Your task to perform on an android device: Go to internet settings Image 0: 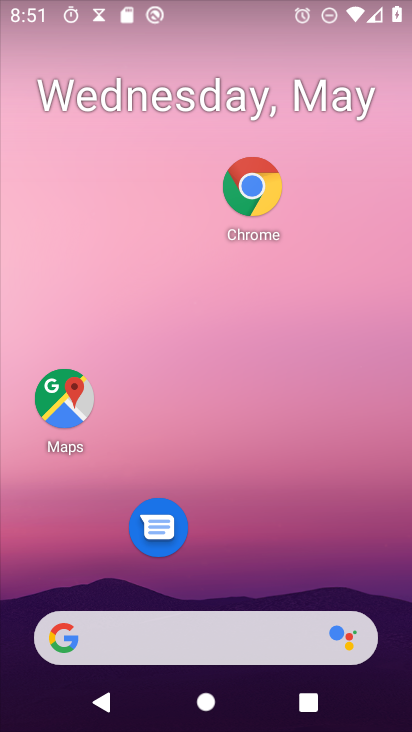
Step 0: drag from (299, 575) to (317, 119)
Your task to perform on an android device: Go to internet settings Image 1: 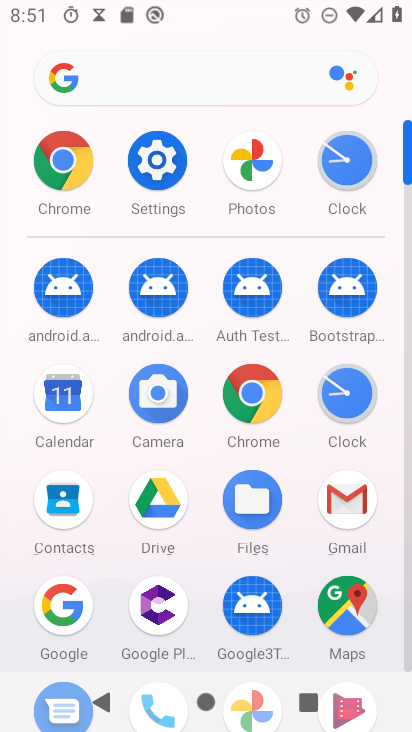
Step 1: click (168, 166)
Your task to perform on an android device: Go to internet settings Image 2: 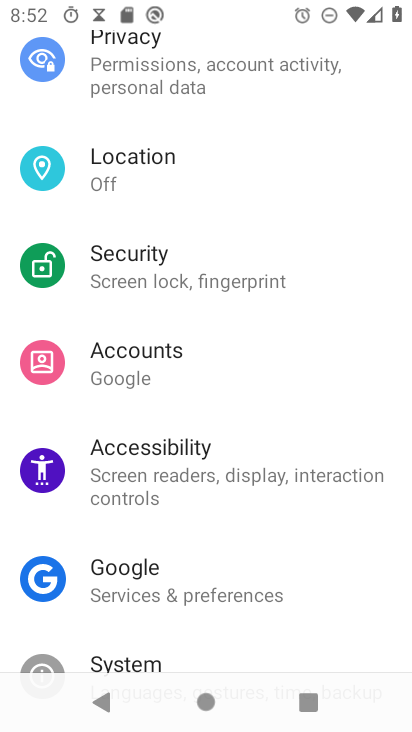
Step 2: drag from (277, 555) to (285, 317)
Your task to perform on an android device: Go to internet settings Image 3: 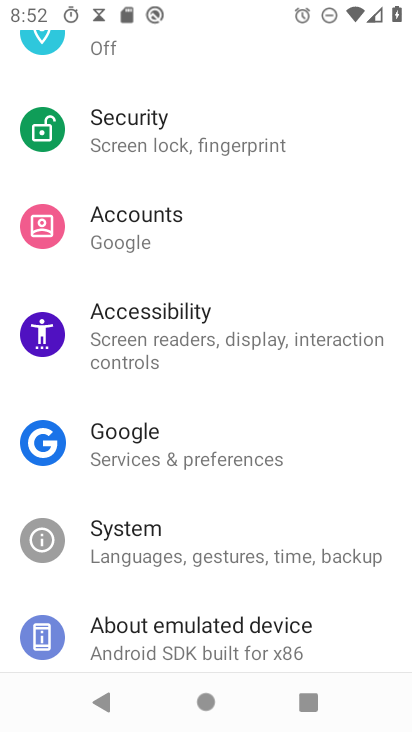
Step 3: drag from (265, 231) to (227, 618)
Your task to perform on an android device: Go to internet settings Image 4: 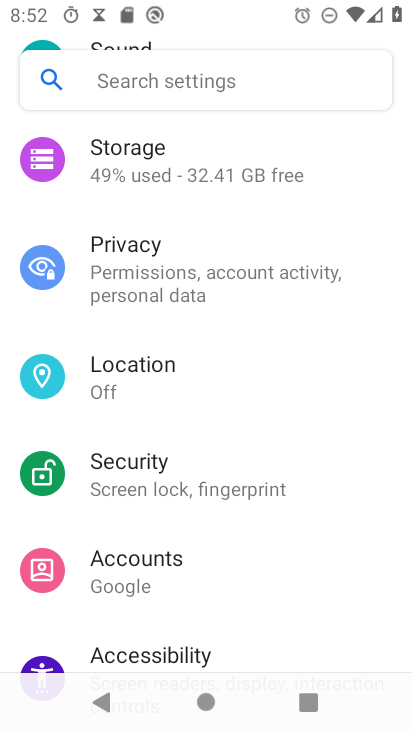
Step 4: drag from (294, 118) to (275, 697)
Your task to perform on an android device: Go to internet settings Image 5: 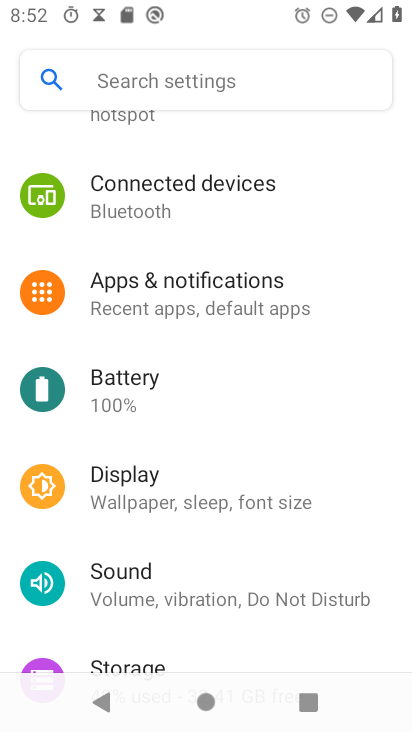
Step 5: drag from (296, 244) to (289, 680)
Your task to perform on an android device: Go to internet settings Image 6: 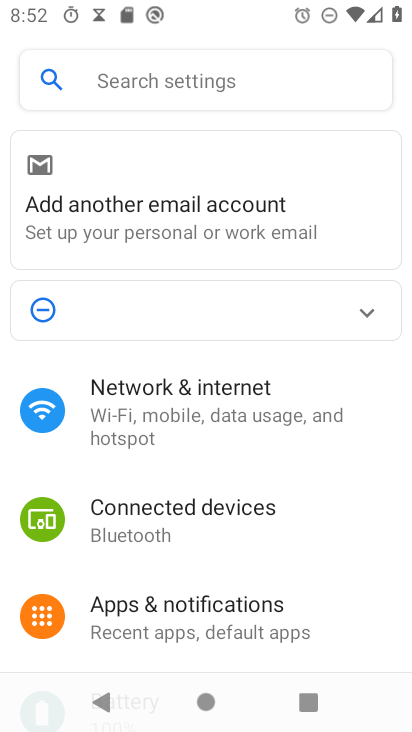
Step 6: click (150, 408)
Your task to perform on an android device: Go to internet settings Image 7: 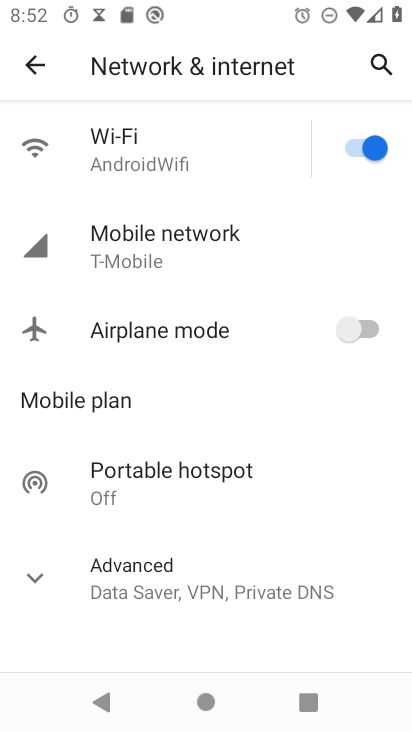
Step 7: task complete